Your task to perform on an android device: What's the weather? Image 0: 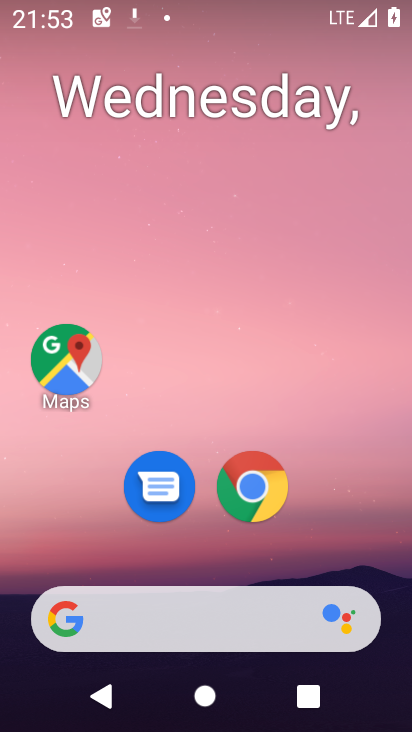
Step 0: click (153, 613)
Your task to perform on an android device: What's the weather? Image 1: 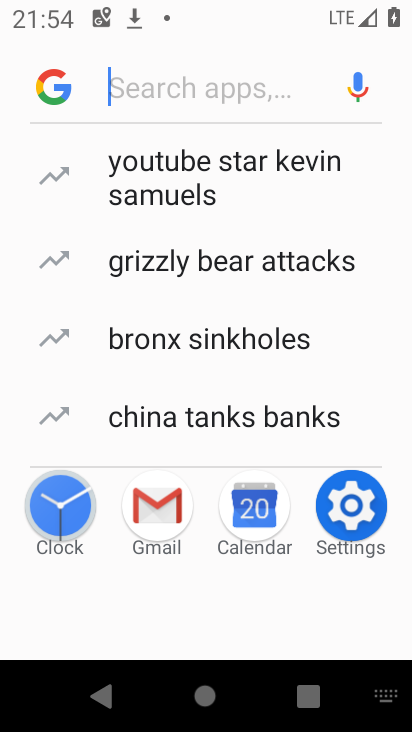
Step 1: click (140, 79)
Your task to perform on an android device: What's the weather? Image 2: 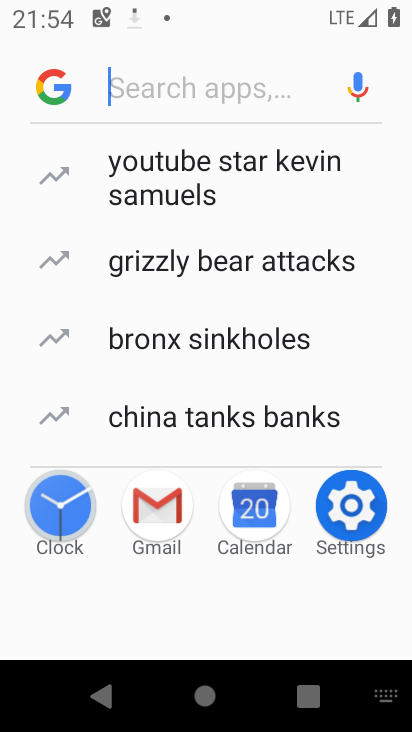
Step 2: type "weather"
Your task to perform on an android device: What's the weather? Image 3: 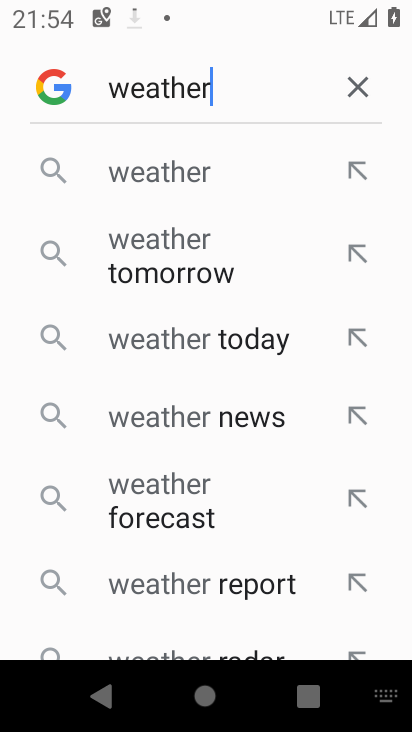
Step 3: click (124, 170)
Your task to perform on an android device: What's the weather? Image 4: 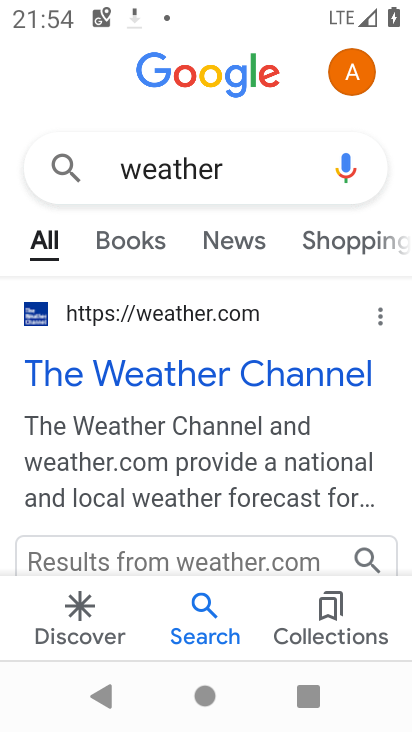
Step 4: press back button
Your task to perform on an android device: What's the weather? Image 5: 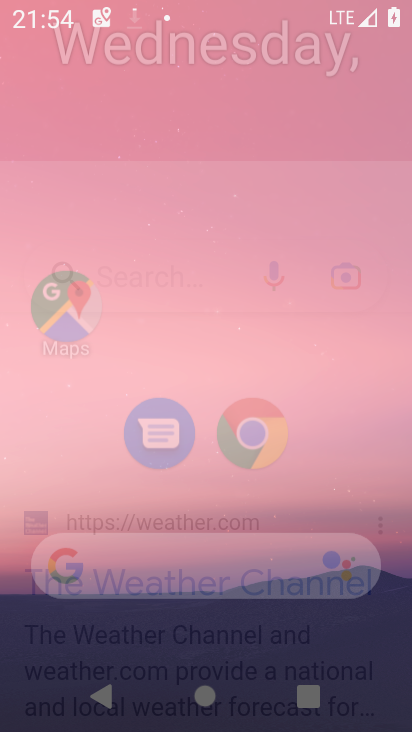
Step 5: press back button
Your task to perform on an android device: What's the weather? Image 6: 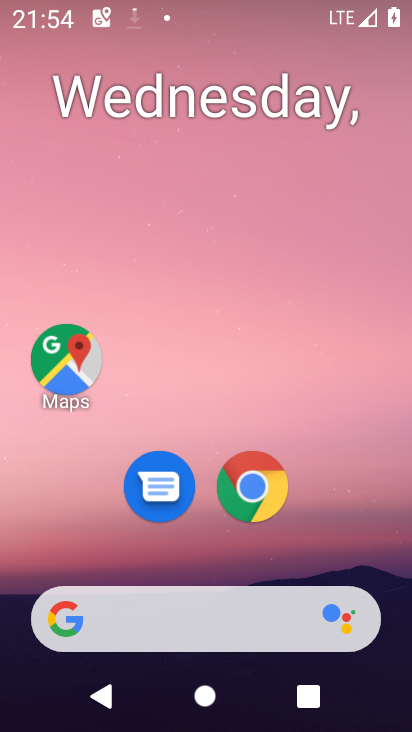
Step 6: press back button
Your task to perform on an android device: What's the weather? Image 7: 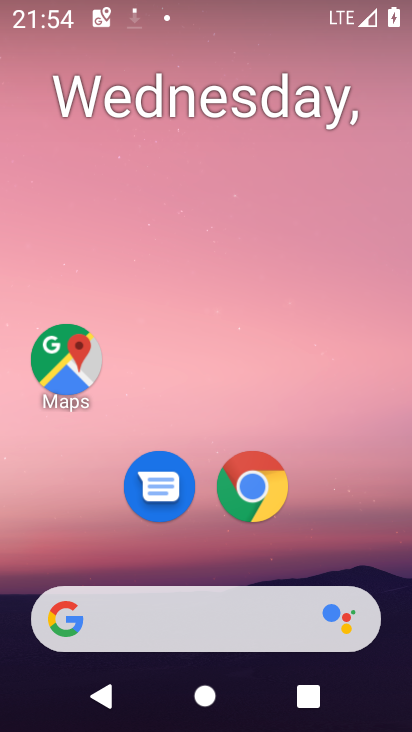
Step 7: click (240, 480)
Your task to perform on an android device: What's the weather? Image 8: 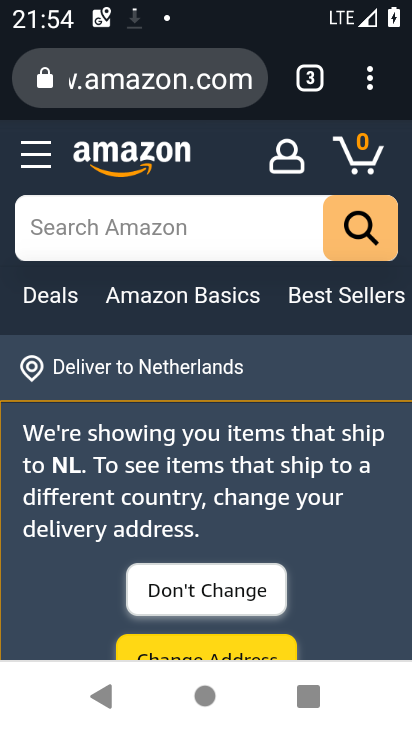
Step 8: click (307, 69)
Your task to perform on an android device: What's the weather? Image 9: 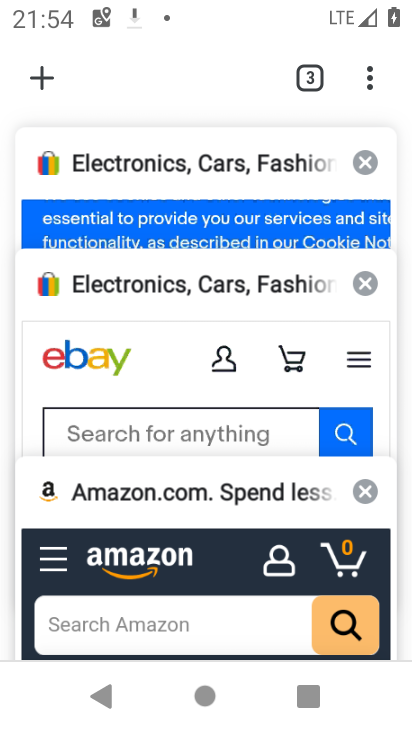
Step 9: click (44, 71)
Your task to perform on an android device: What's the weather? Image 10: 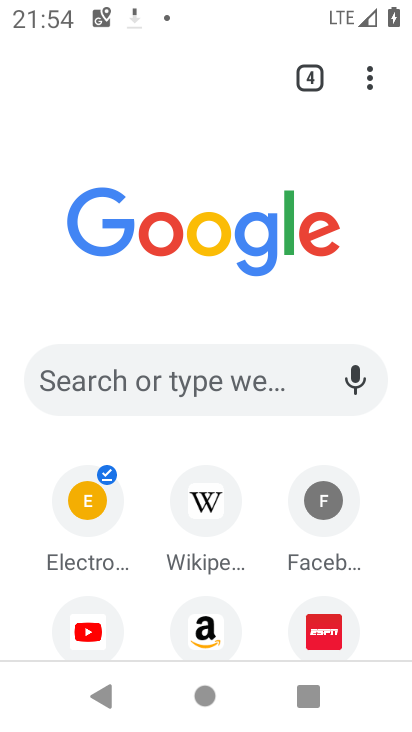
Step 10: click (128, 373)
Your task to perform on an android device: What's the weather? Image 11: 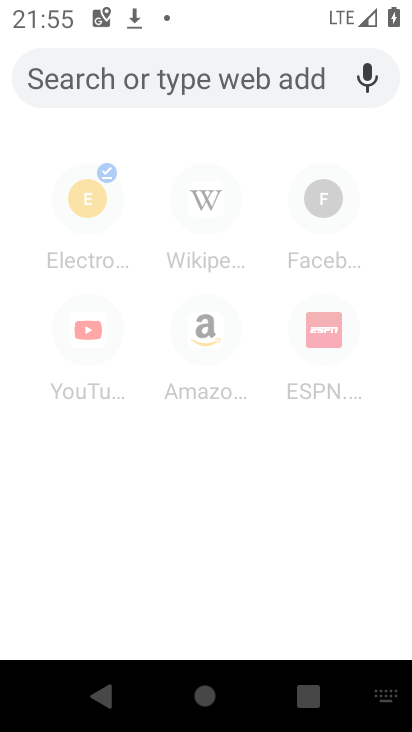
Step 11: type "weather"
Your task to perform on an android device: What's the weather? Image 12: 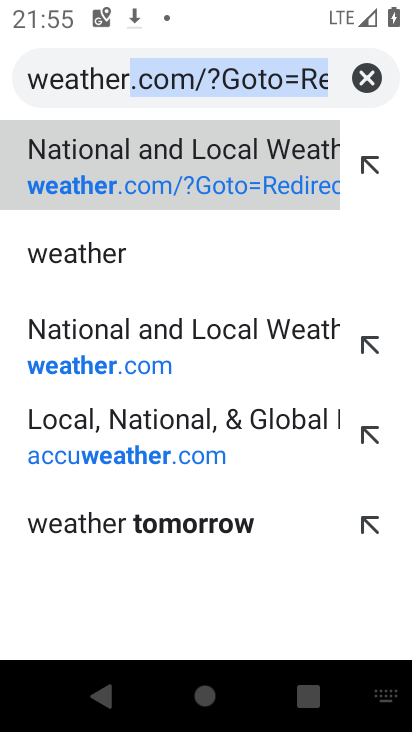
Step 12: click (175, 185)
Your task to perform on an android device: What's the weather? Image 13: 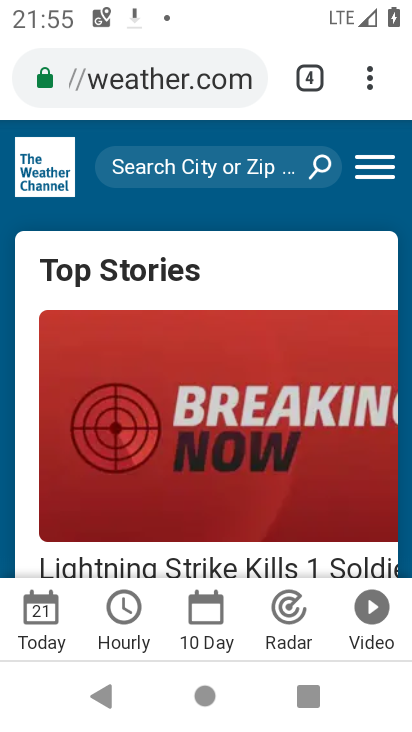
Step 13: drag from (152, 514) to (152, 119)
Your task to perform on an android device: What's the weather? Image 14: 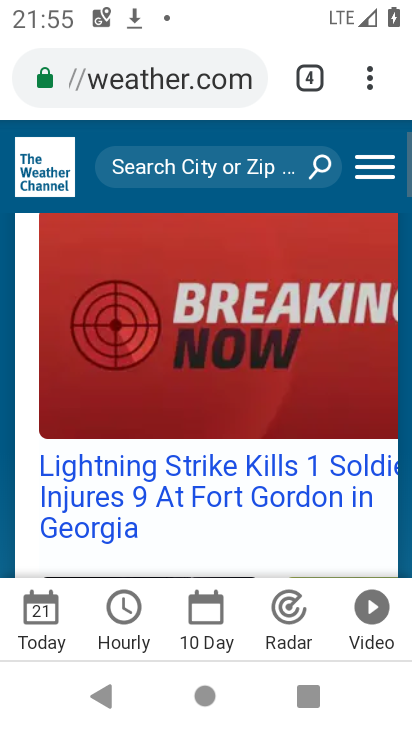
Step 14: click (26, 636)
Your task to perform on an android device: What's the weather? Image 15: 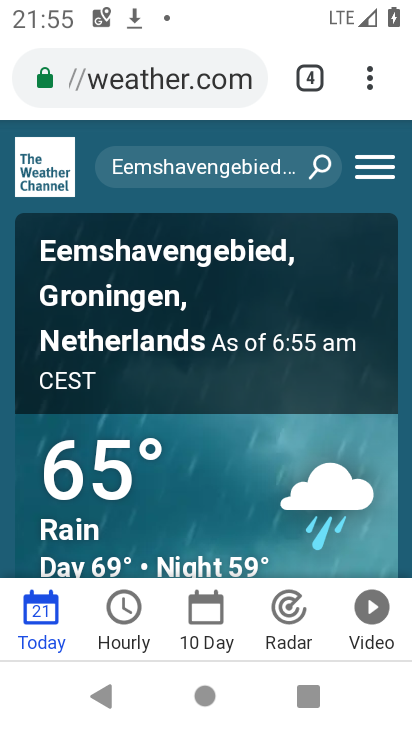
Step 15: task complete